Your task to perform on an android device: check out phone information Image 0: 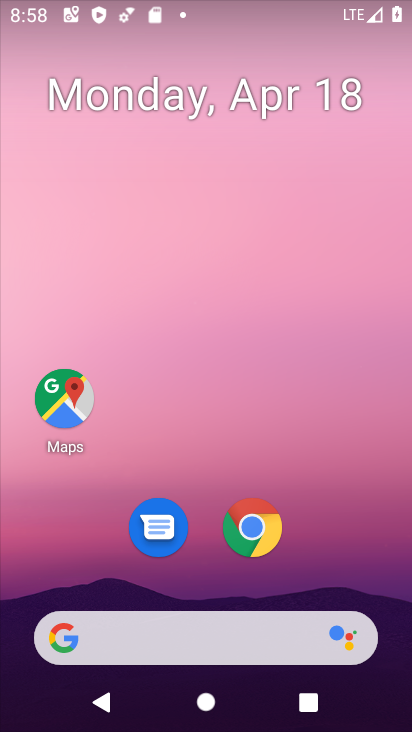
Step 0: drag from (283, 219) to (252, 13)
Your task to perform on an android device: check out phone information Image 1: 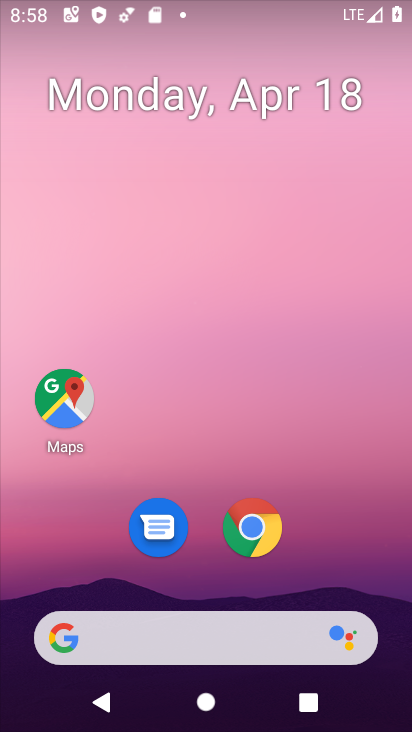
Step 1: drag from (382, 562) to (252, 0)
Your task to perform on an android device: check out phone information Image 2: 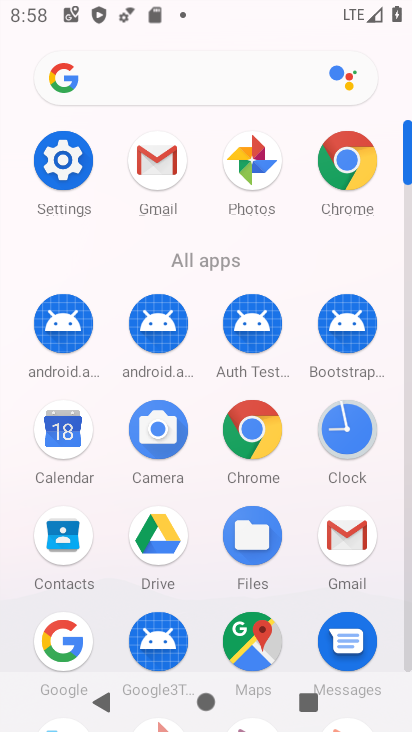
Step 2: click (63, 159)
Your task to perform on an android device: check out phone information Image 3: 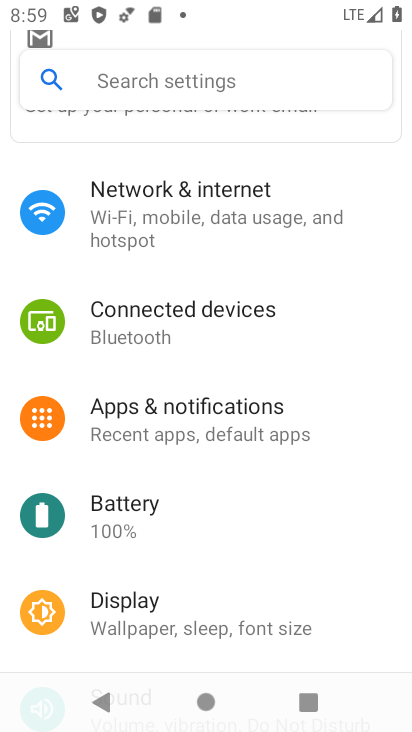
Step 3: drag from (298, 551) to (302, 140)
Your task to perform on an android device: check out phone information Image 4: 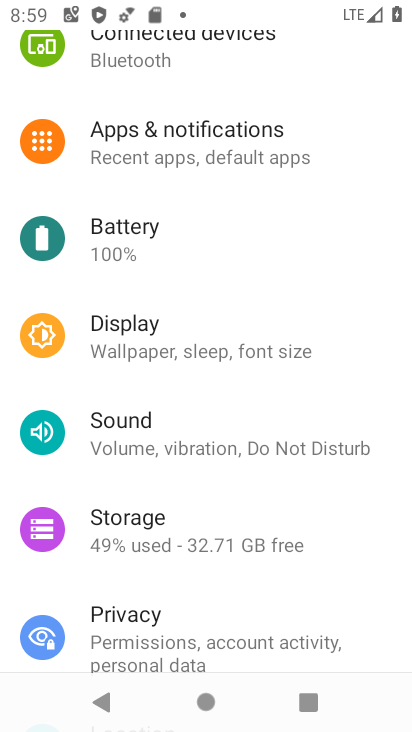
Step 4: drag from (329, 541) to (319, 131)
Your task to perform on an android device: check out phone information Image 5: 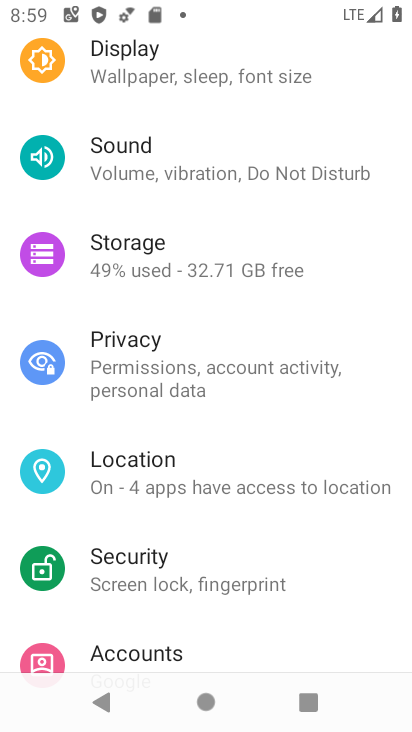
Step 5: drag from (319, 580) to (302, 128)
Your task to perform on an android device: check out phone information Image 6: 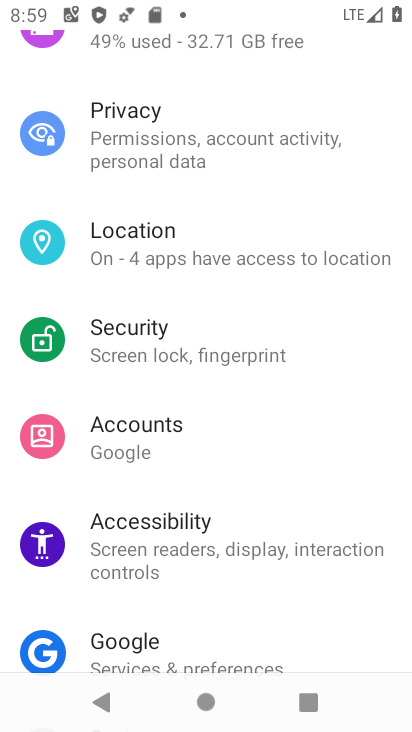
Step 6: drag from (264, 473) to (251, 64)
Your task to perform on an android device: check out phone information Image 7: 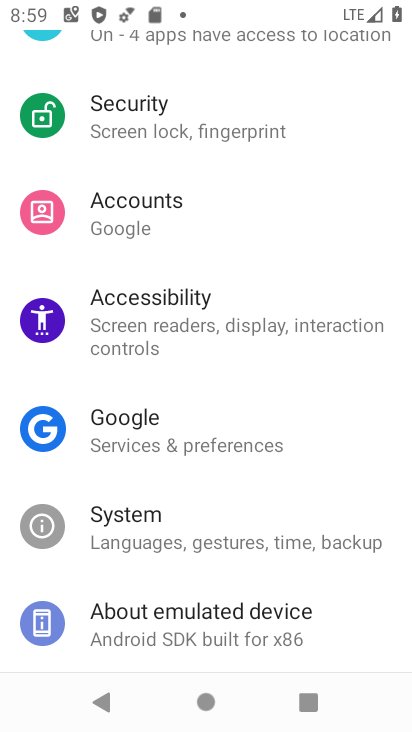
Step 7: click (196, 616)
Your task to perform on an android device: check out phone information Image 8: 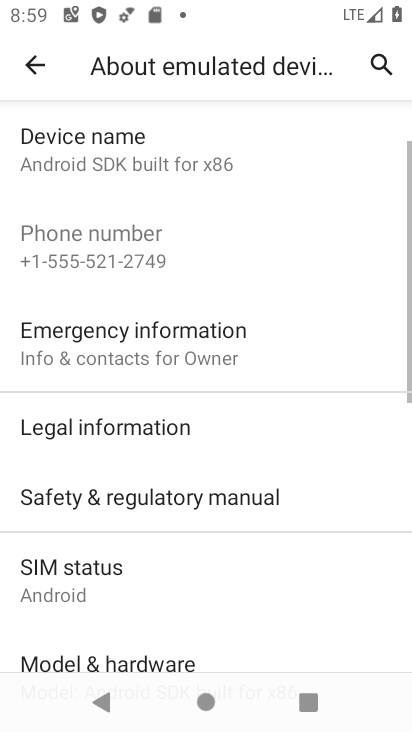
Step 8: task complete